Your task to perform on an android device: Empty the shopping cart on amazon.com. Add macbook pro 15 inch to the cart on amazon.com, then select checkout. Image 0: 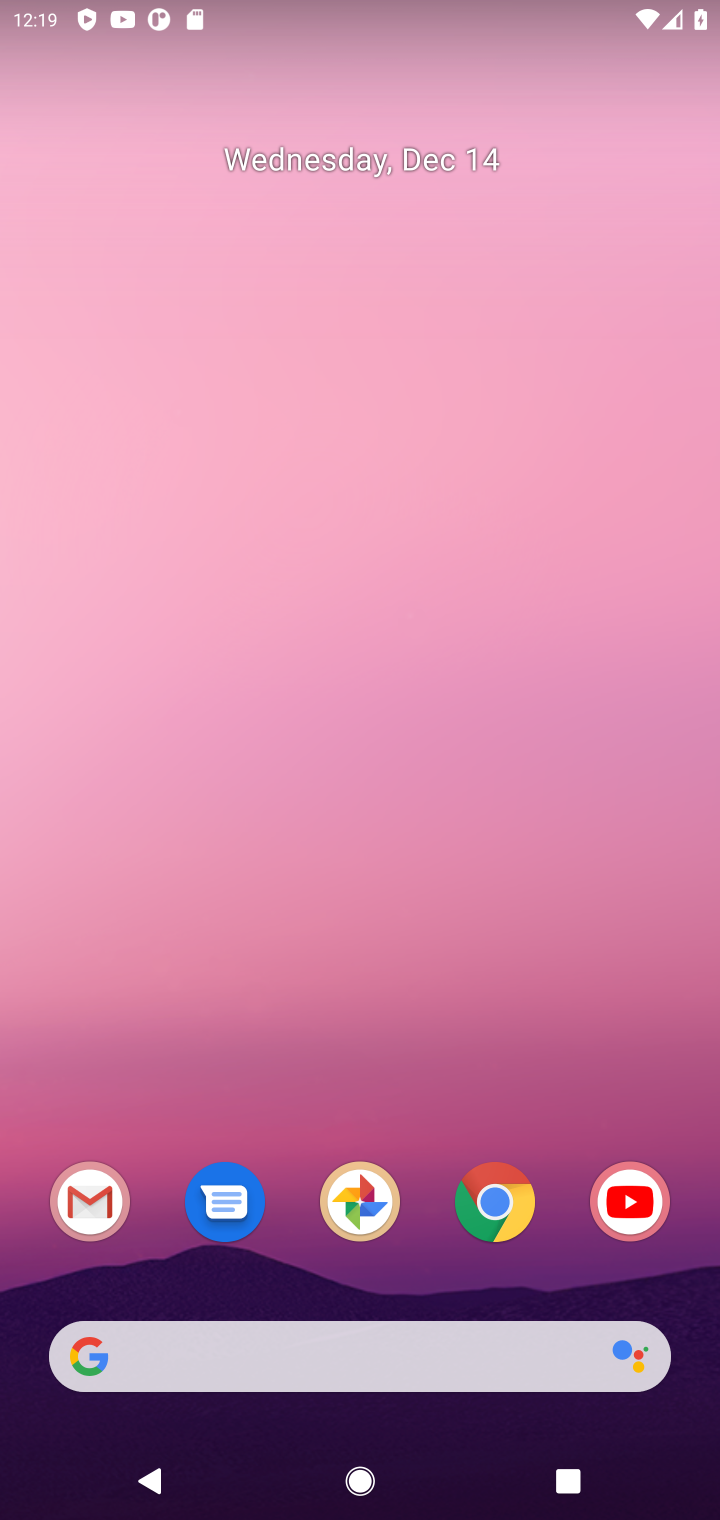
Step 0: click (487, 1205)
Your task to perform on an android device: Empty the shopping cart on amazon.com. Add macbook pro 15 inch to the cart on amazon.com, then select checkout. Image 1: 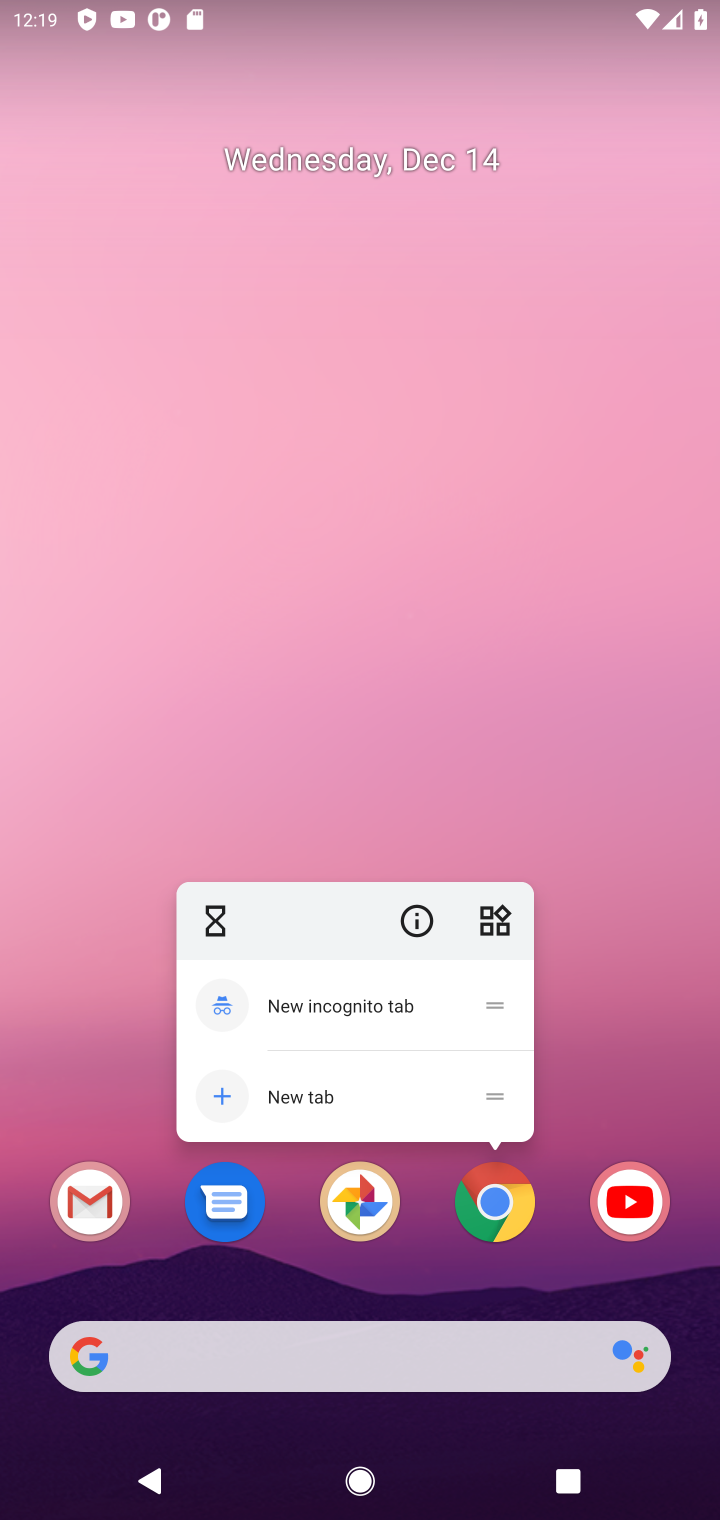
Step 1: click (487, 1205)
Your task to perform on an android device: Empty the shopping cart on amazon.com. Add macbook pro 15 inch to the cart on amazon.com, then select checkout. Image 2: 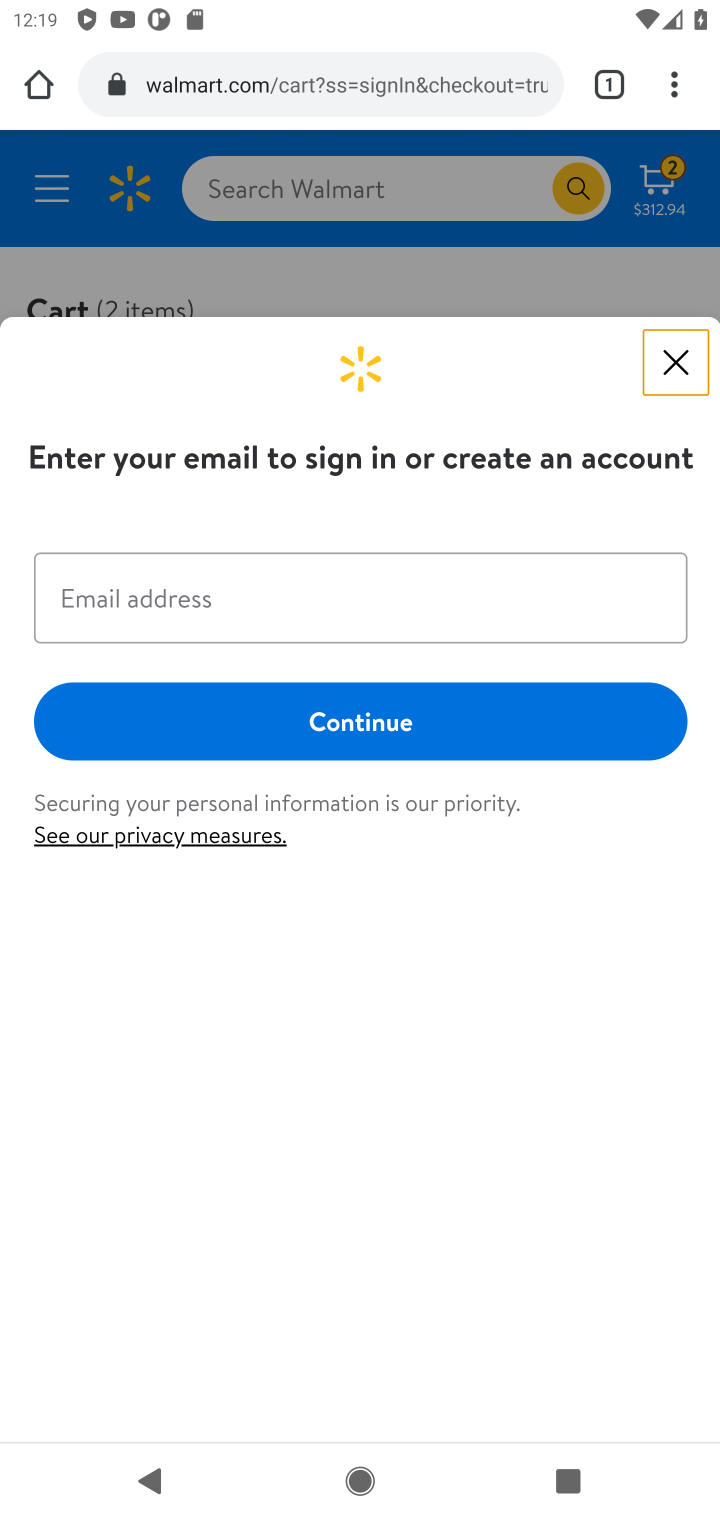
Step 2: click (666, 361)
Your task to perform on an android device: Empty the shopping cart on amazon.com. Add macbook pro 15 inch to the cart on amazon.com, then select checkout. Image 3: 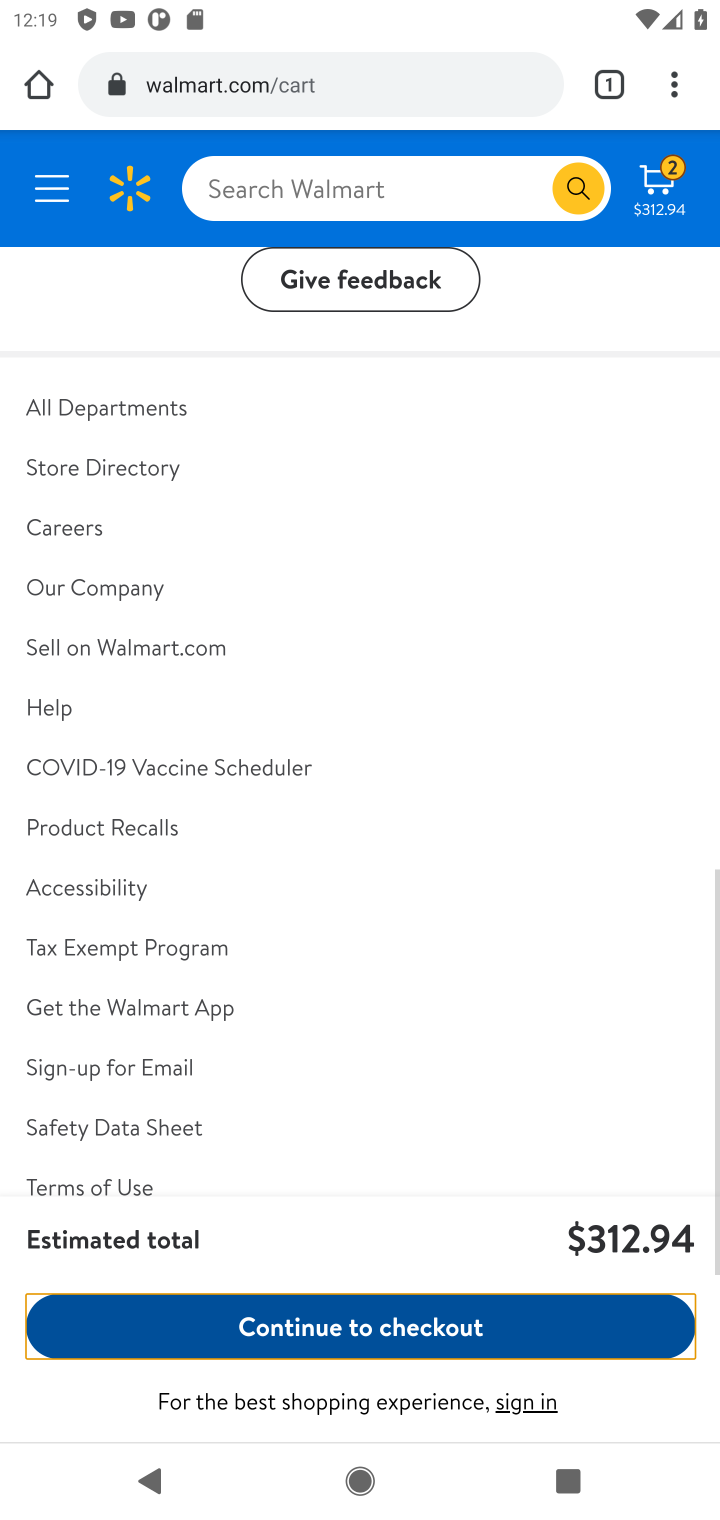
Step 3: click (329, 76)
Your task to perform on an android device: Empty the shopping cart on amazon.com. Add macbook pro 15 inch to the cart on amazon.com, then select checkout. Image 4: 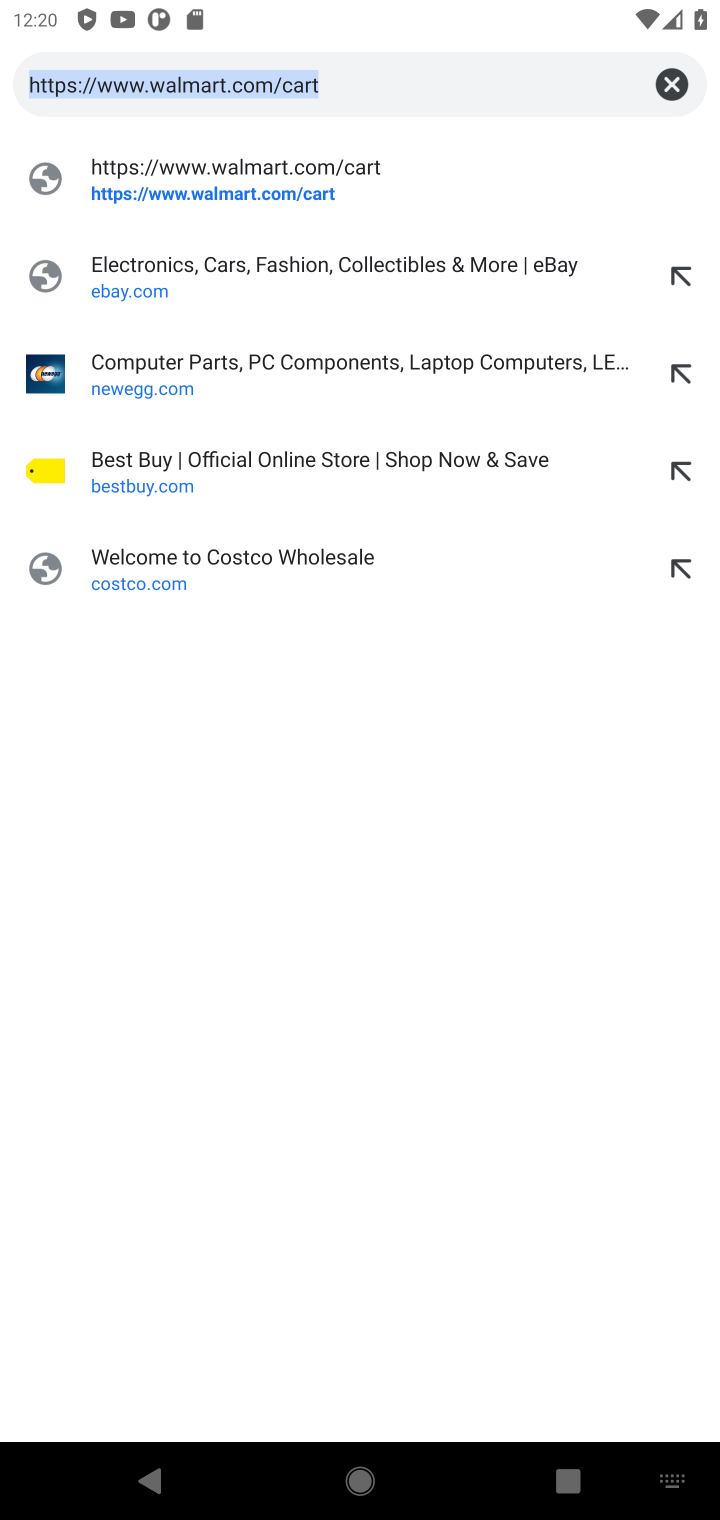
Step 4: type "amazon"
Your task to perform on an android device: Empty the shopping cart on amazon.com. Add macbook pro 15 inch to the cart on amazon.com, then select checkout. Image 5: 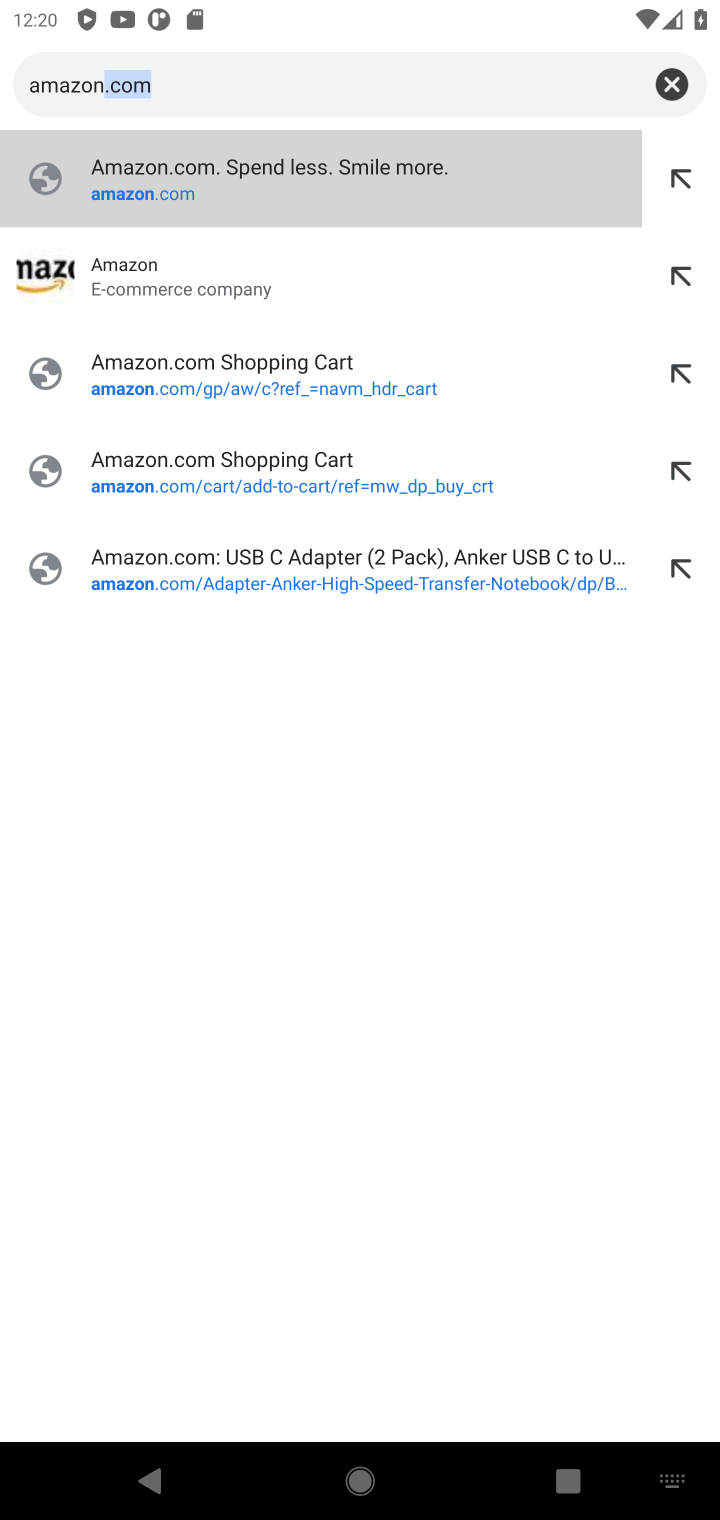
Step 5: click (372, 181)
Your task to perform on an android device: Empty the shopping cart on amazon.com. Add macbook pro 15 inch to the cart on amazon.com, then select checkout. Image 6: 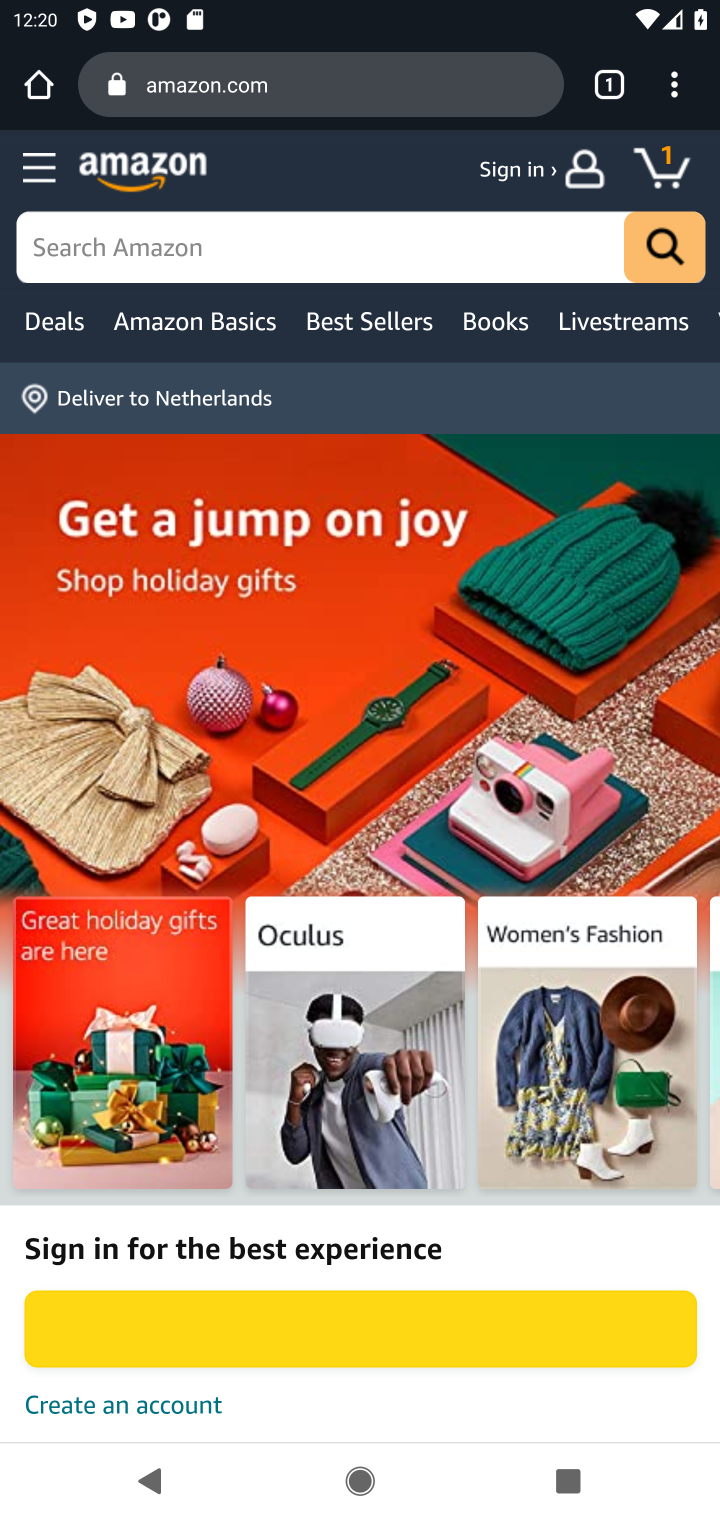
Step 6: click (370, 242)
Your task to perform on an android device: Empty the shopping cart on amazon.com. Add macbook pro 15 inch to the cart on amazon.com, then select checkout. Image 7: 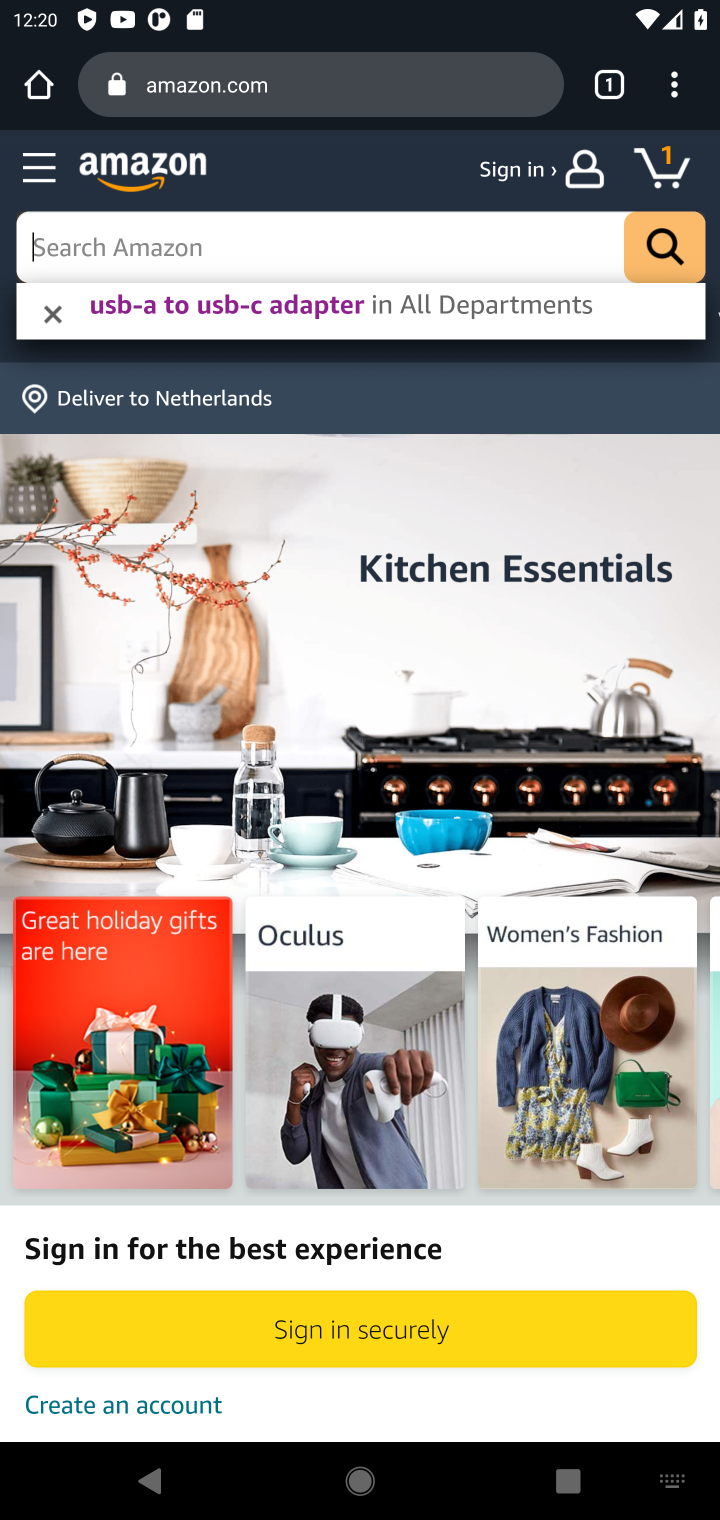
Step 7: type "macbook pro 15"
Your task to perform on an android device: Empty the shopping cart on amazon.com. Add macbook pro 15 inch to the cart on amazon.com, then select checkout. Image 8: 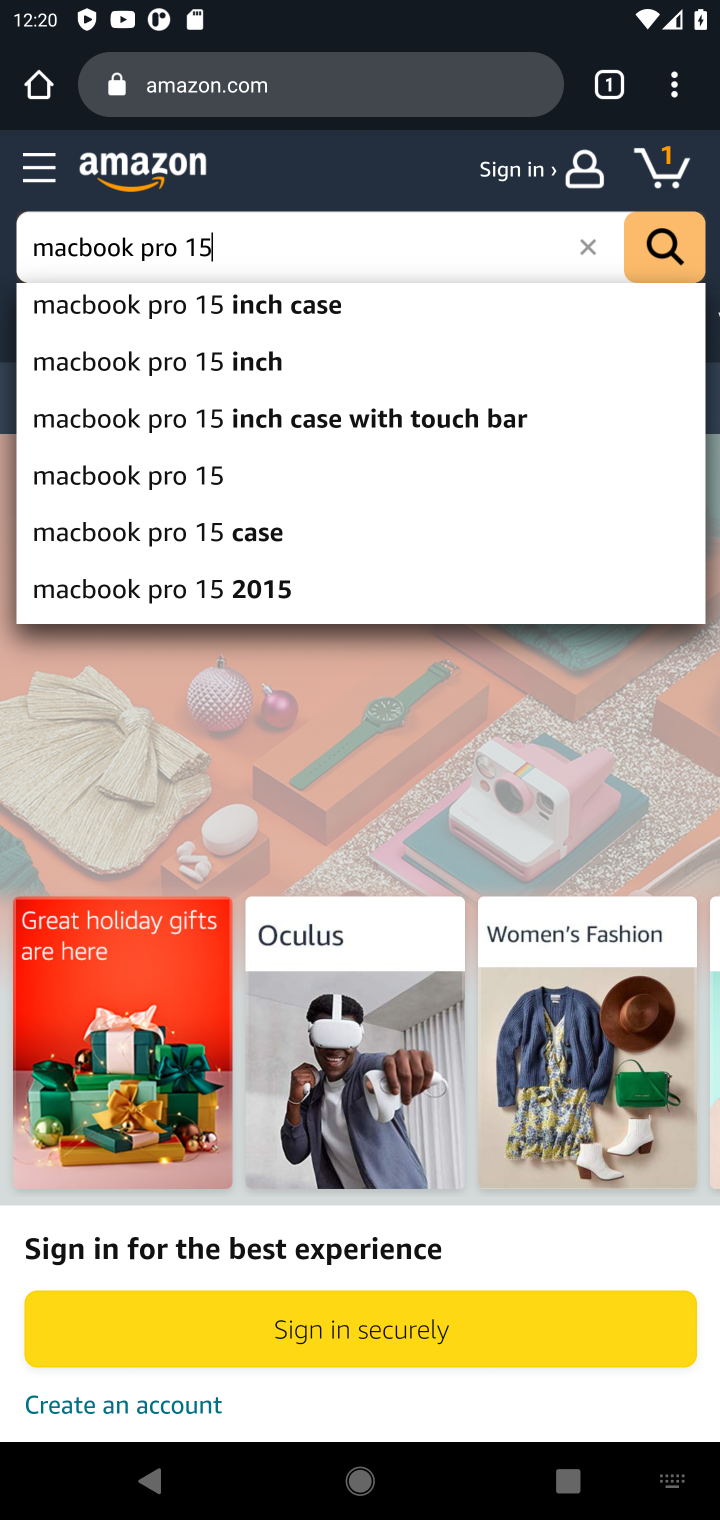
Step 8: click (241, 295)
Your task to perform on an android device: Empty the shopping cart on amazon.com. Add macbook pro 15 inch to the cart on amazon.com, then select checkout. Image 9: 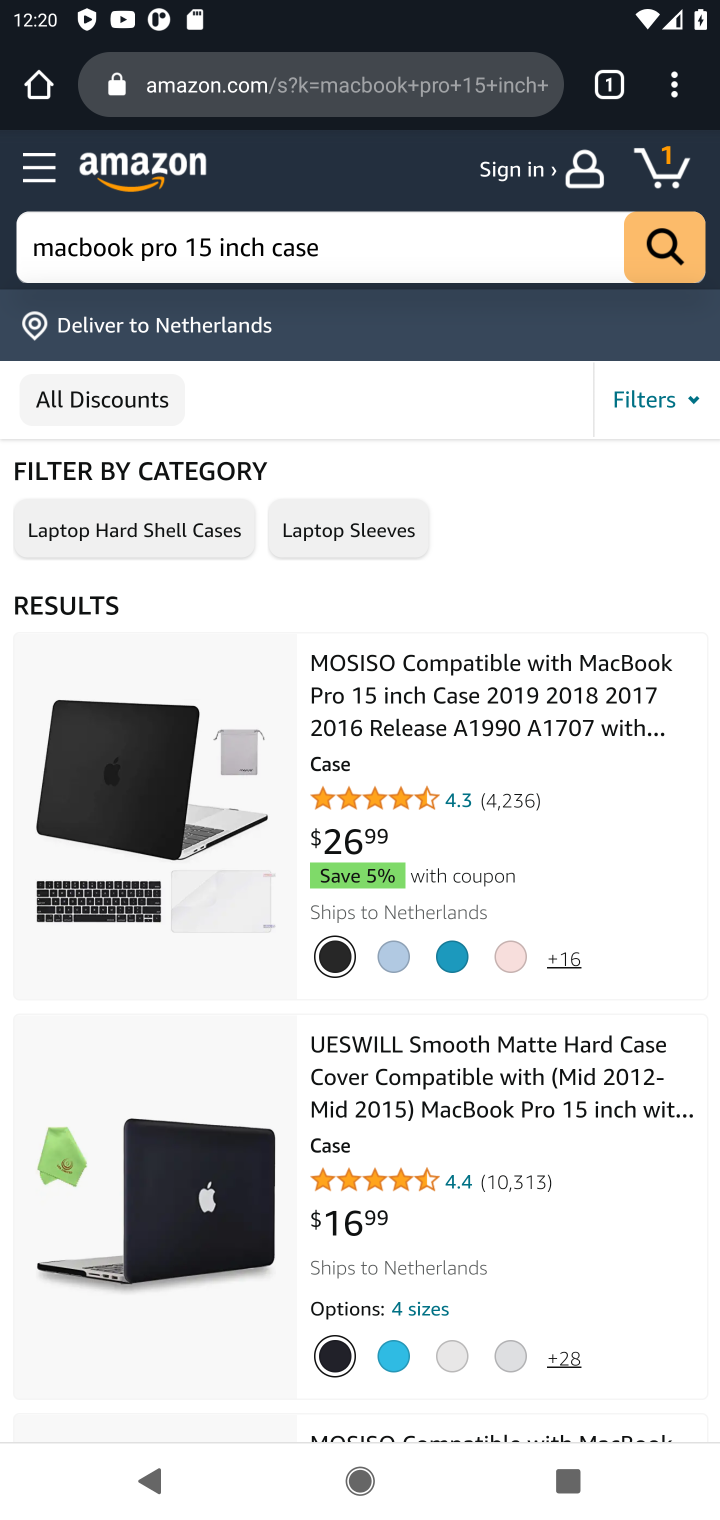
Step 9: click (504, 739)
Your task to perform on an android device: Empty the shopping cart on amazon.com. Add macbook pro 15 inch to the cart on amazon.com, then select checkout. Image 10: 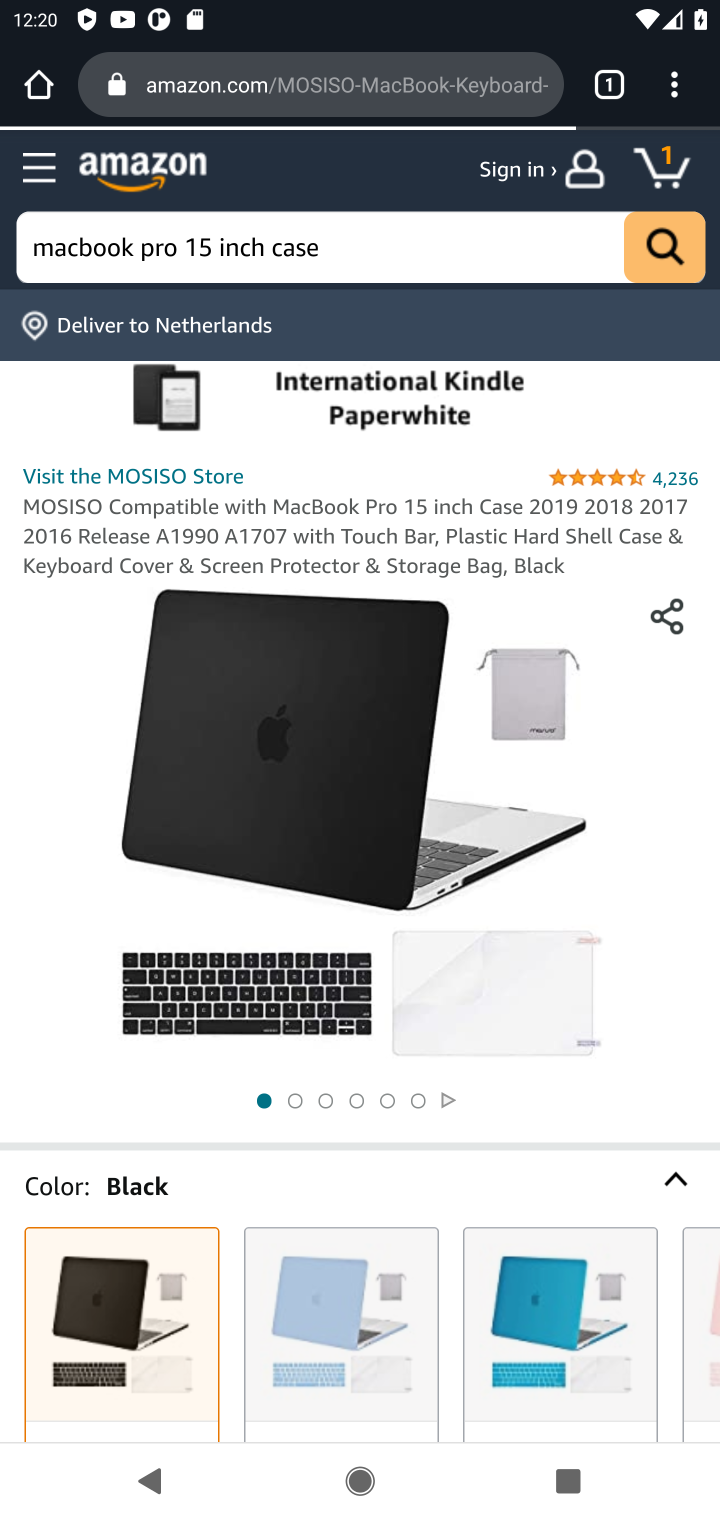
Step 10: drag from (506, 1142) to (427, 345)
Your task to perform on an android device: Empty the shopping cart on amazon.com. Add macbook pro 15 inch to the cart on amazon.com, then select checkout. Image 11: 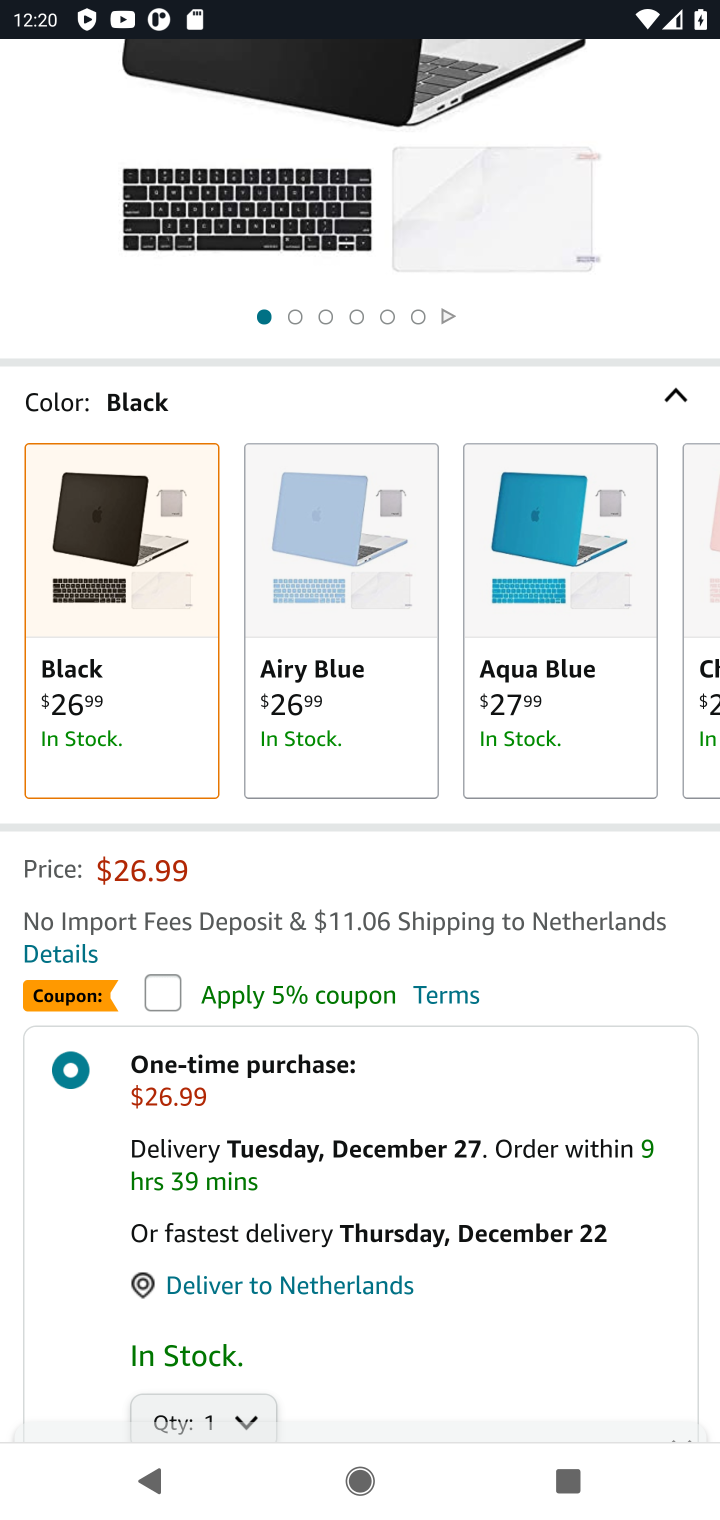
Step 11: drag from (547, 1074) to (461, 179)
Your task to perform on an android device: Empty the shopping cart on amazon.com. Add macbook pro 15 inch to the cart on amazon.com, then select checkout. Image 12: 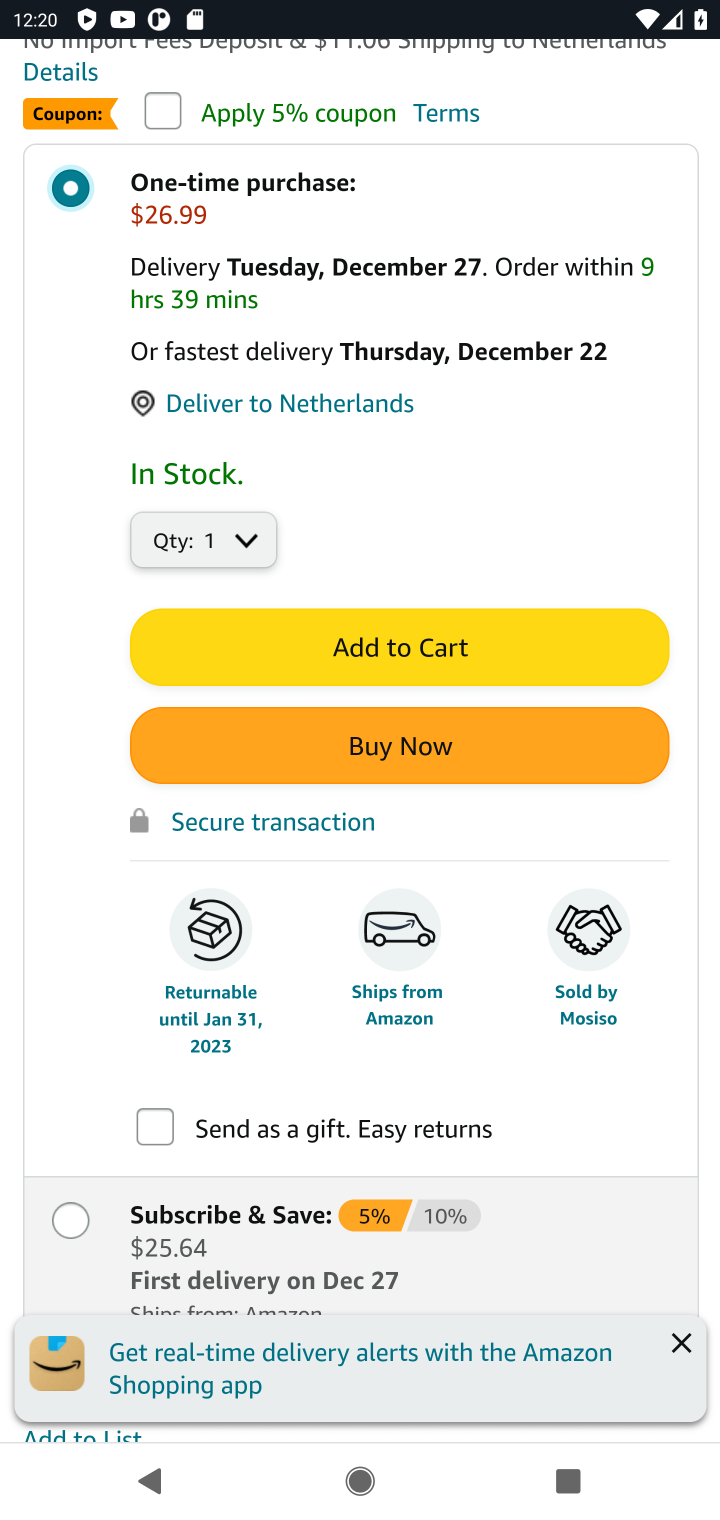
Step 12: click (432, 648)
Your task to perform on an android device: Empty the shopping cart on amazon.com. Add macbook pro 15 inch to the cart on amazon.com, then select checkout. Image 13: 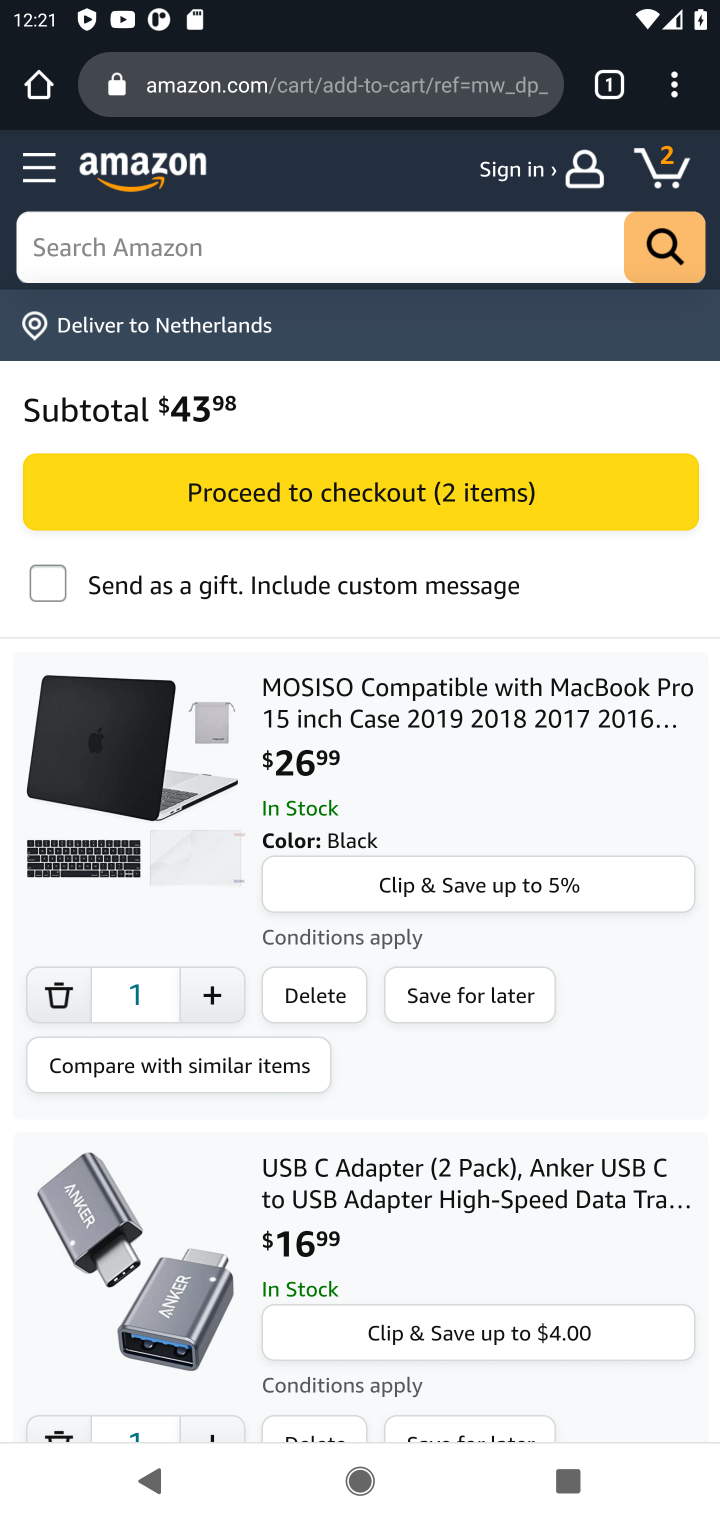
Step 13: click (415, 509)
Your task to perform on an android device: Empty the shopping cart on amazon.com. Add macbook pro 15 inch to the cart on amazon.com, then select checkout. Image 14: 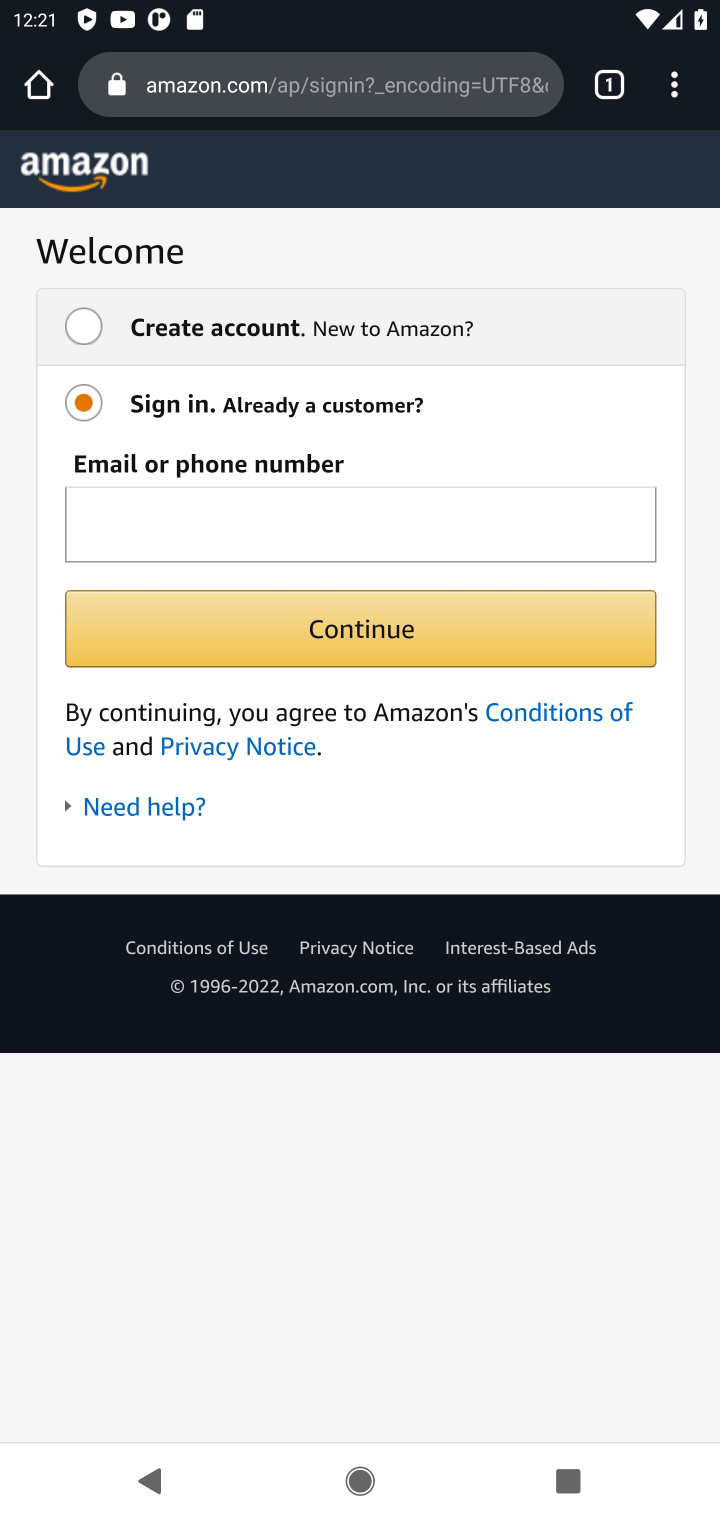
Step 14: task complete